Your task to perform on an android device: turn on wifi Image 0: 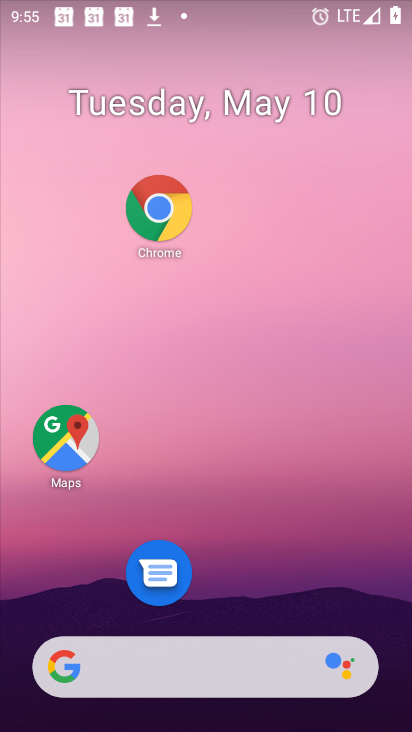
Step 0: drag from (325, 695) to (326, 147)
Your task to perform on an android device: turn on wifi Image 1: 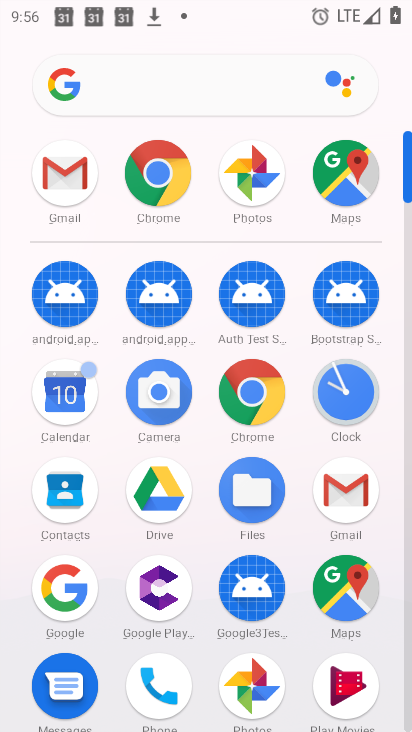
Step 1: drag from (202, 532) to (272, 211)
Your task to perform on an android device: turn on wifi Image 2: 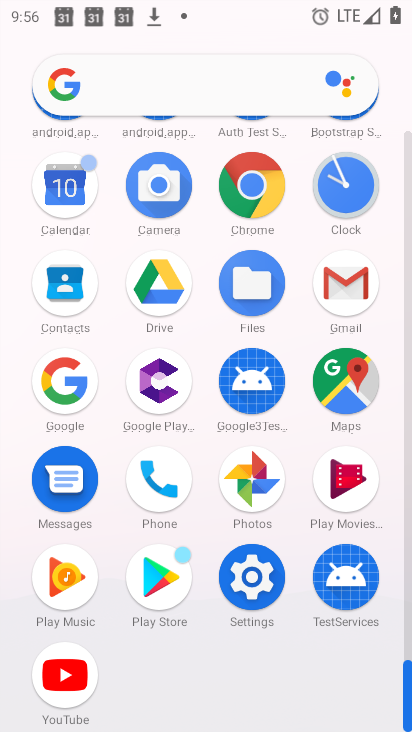
Step 2: click (248, 569)
Your task to perform on an android device: turn on wifi Image 3: 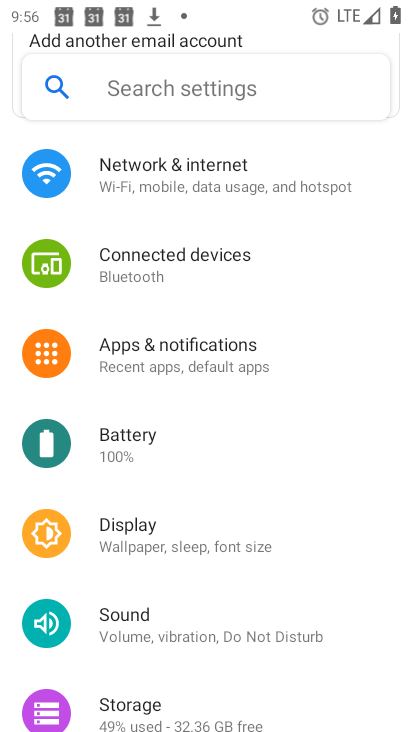
Step 3: click (174, 184)
Your task to perform on an android device: turn on wifi Image 4: 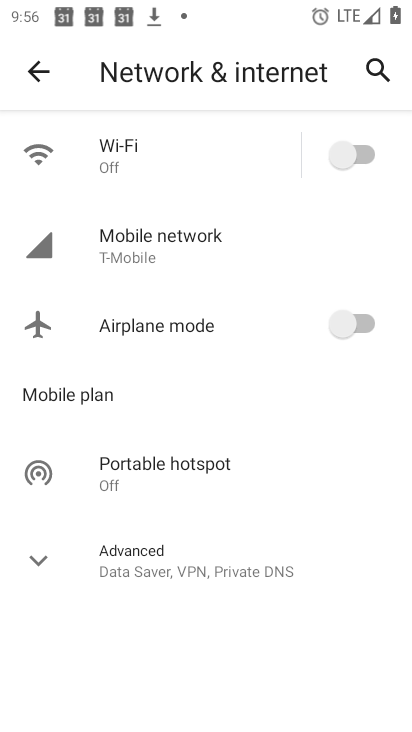
Step 4: click (172, 164)
Your task to perform on an android device: turn on wifi Image 5: 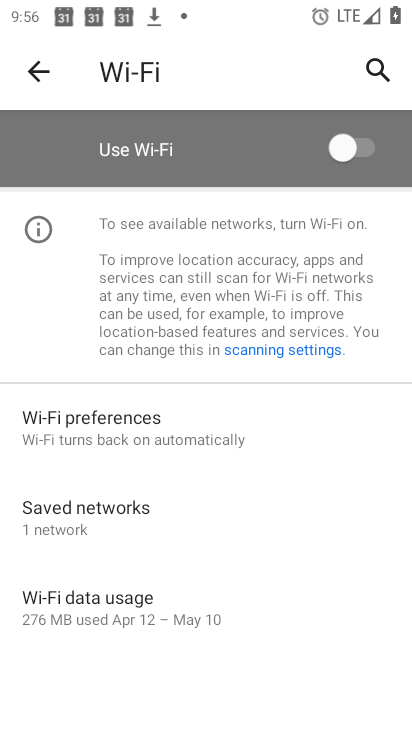
Step 5: click (362, 151)
Your task to perform on an android device: turn on wifi Image 6: 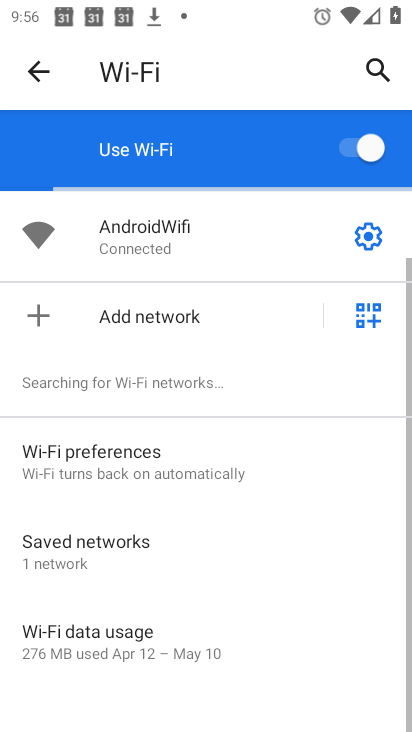
Step 6: task complete